Your task to perform on an android device: toggle data saver in the chrome app Image 0: 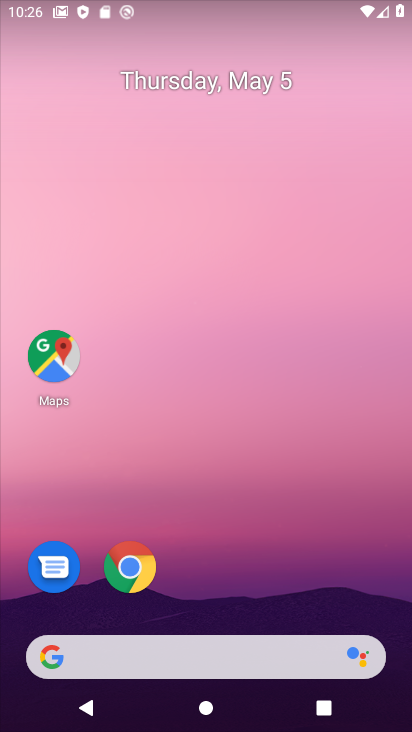
Step 0: click (148, 563)
Your task to perform on an android device: toggle data saver in the chrome app Image 1: 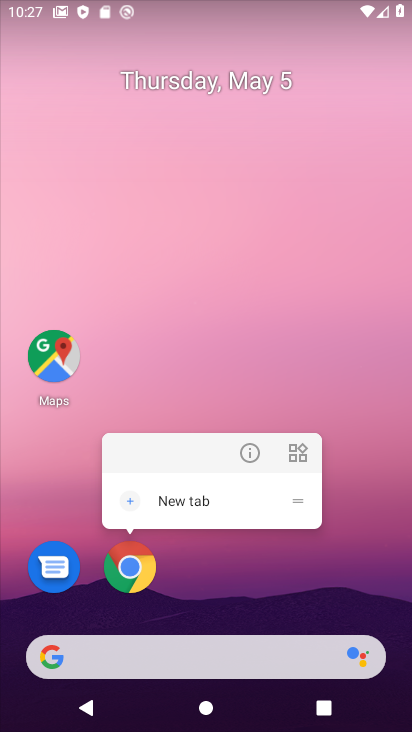
Step 1: click (117, 576)
Your task to perform on an android device: toggle data saver in the chrome app Image 2: 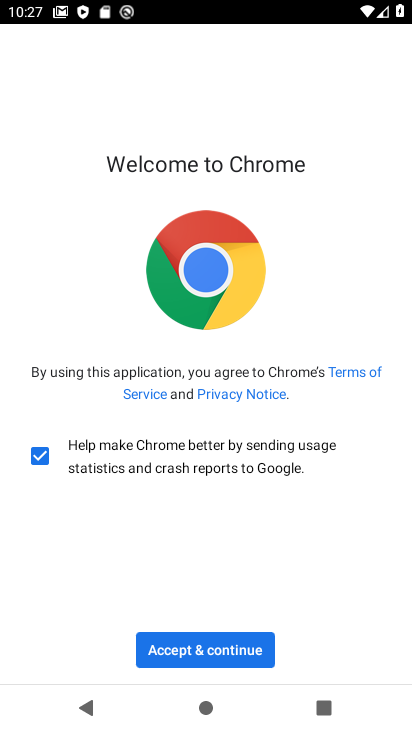
Step 2: click (191, 654)
Your task to perform on an android device: toggle data saver in the chrome app Image 3: 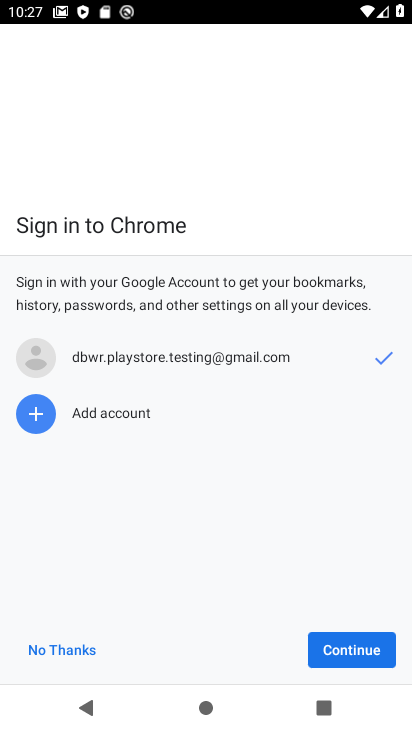
Step 3: click (366, 645)
Your task to perform on an android device: toggle data saver in the chrome app Image 4: 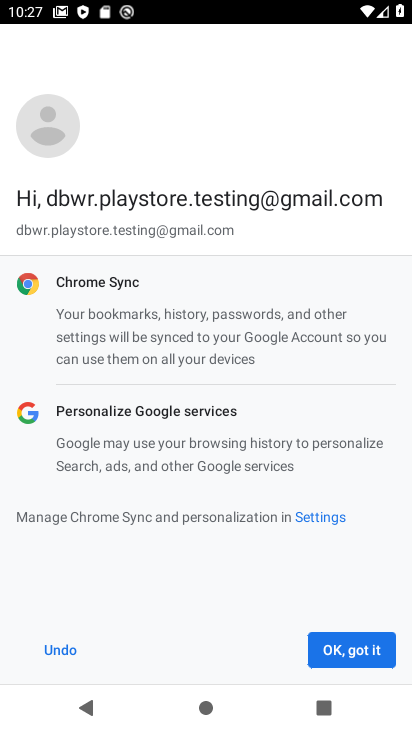
Step 4: click (350, 651)
Your task to perform on an android device: toggle data saver in the chrome app Image 5: 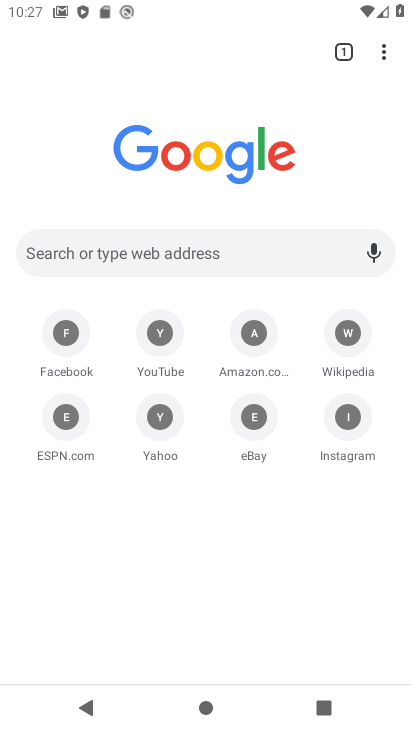
Step 5: drag from (379, 48) to (232, 435)
Your task to perform on an android device: toggle data saver in the chrome app Image 6: 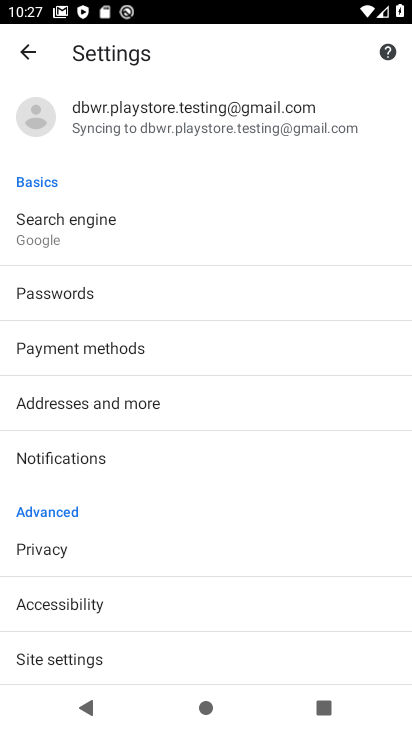
Step 6: drag from (110, 633) to (177, 228)
Your task to perform on an android device: toggle data saver in the chrome app Image 7: 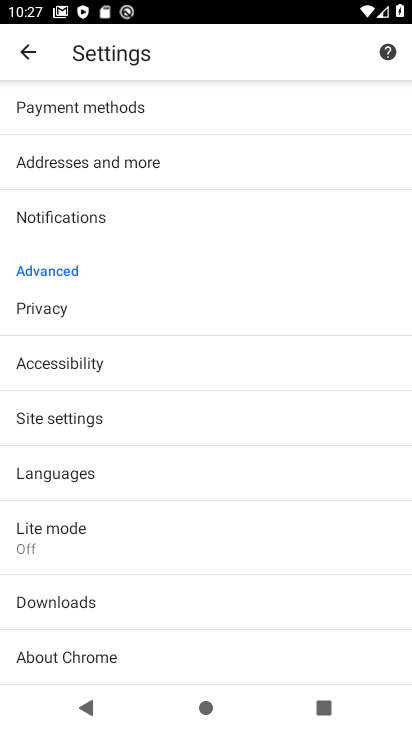
Step 7: click (42, 527)
Your task to perform on an android device: toggle data saver in the chrome app Image 8: 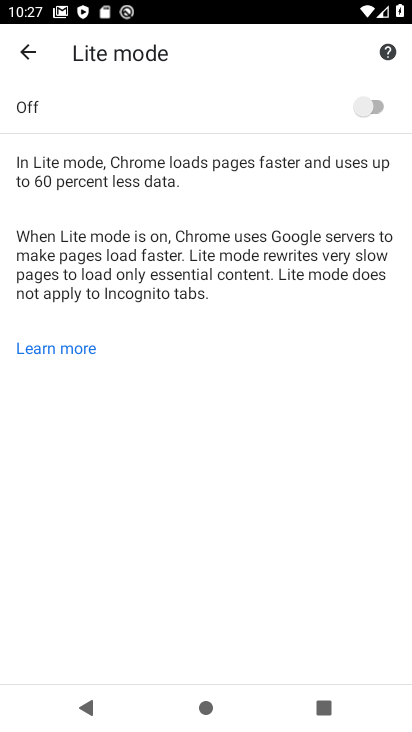
Step 8: click (360, 98)
Your task to perform on an android device: toggle data saver in the chrome app Image 9: 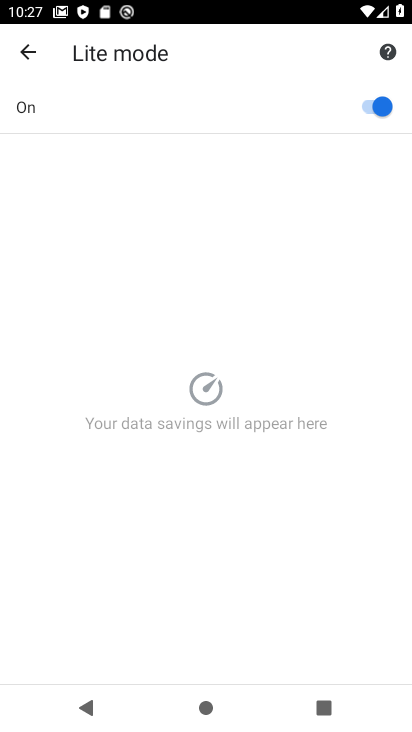
Step 9: task complete